Your task to perform on an android device: Clear the cart on target.com. Add energizer triple a to the cart on target.com, then select checkout. Image 0: 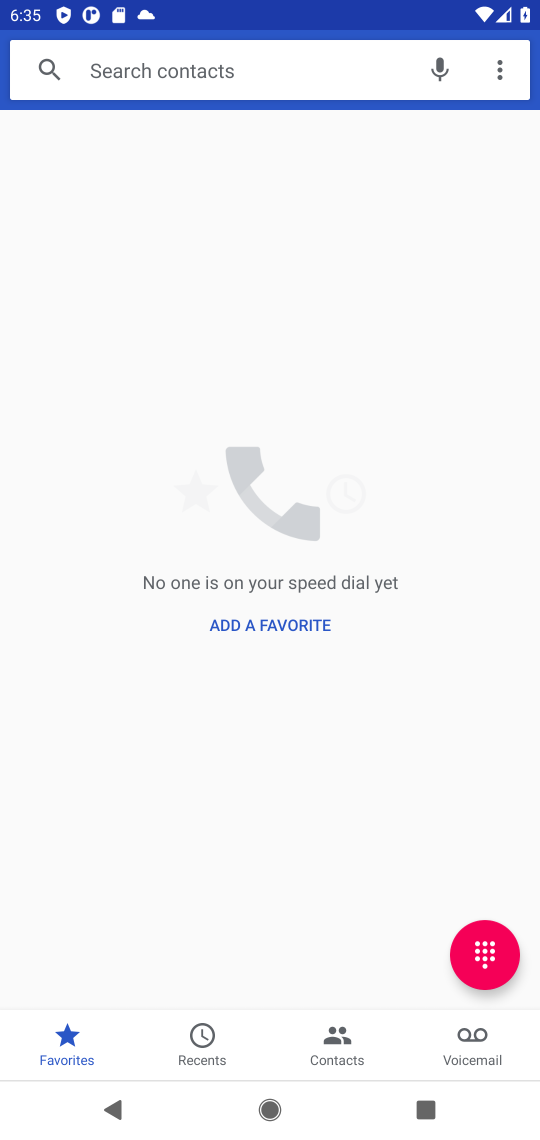
Step 0: press home button
Your task to perform on an android device: Clear the cart on target.com. Add energizer triple a to the cart on target.com, then select checkout. Image 1: 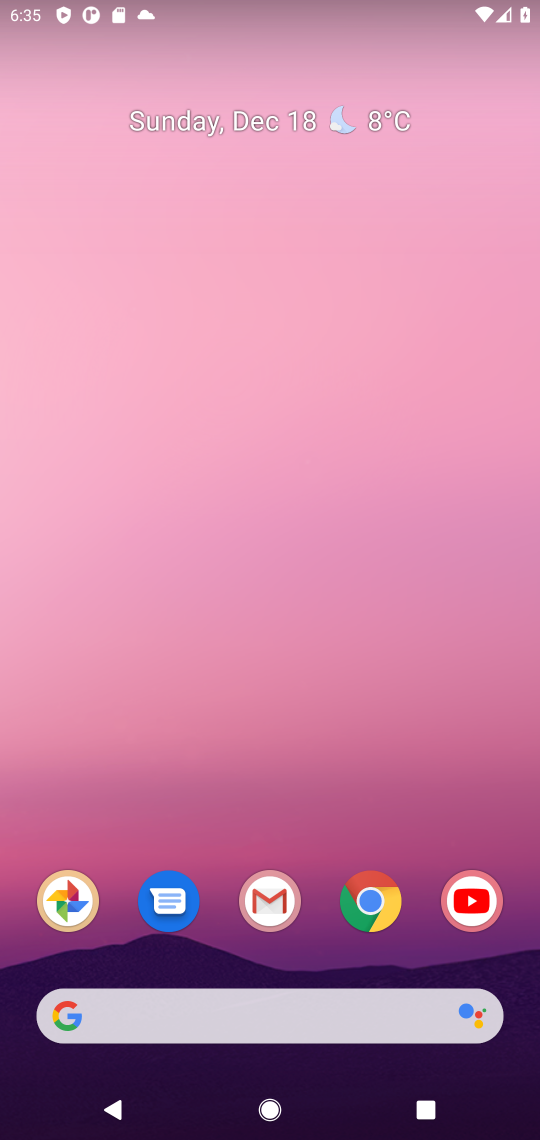
Step 1: click (363, 882)
Your task to perform on an android device: Clear the cart on target.com. Add energizer triple a to the cart on target.com, then select checkout. Image 2: 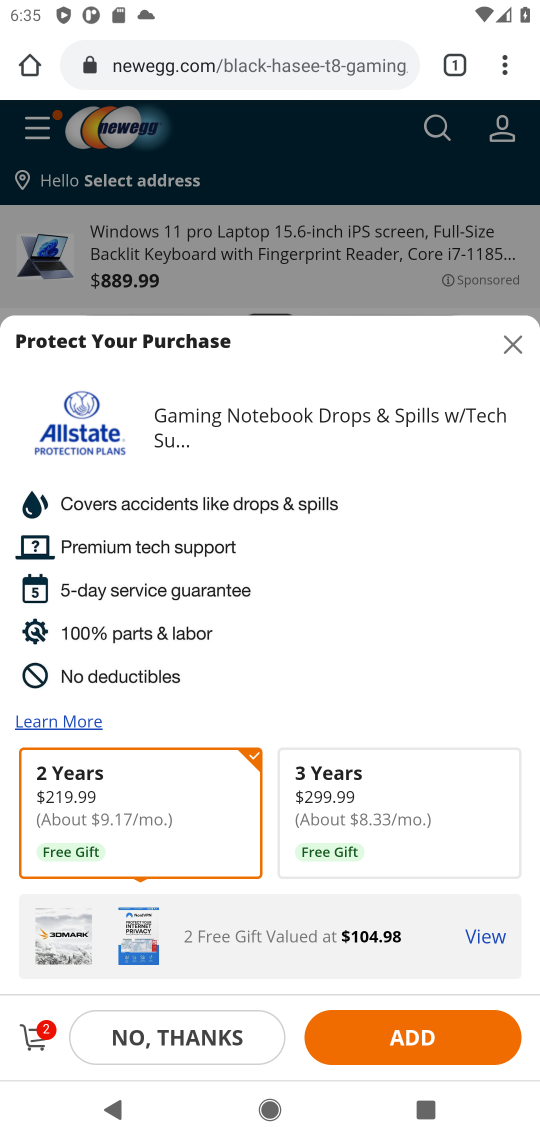
Step 2: click (180, 57)
Your task to perform on an android device: Clear the cart on target.com. Add energizer triple a to the cart on target.com, then select checkout. Image 3: 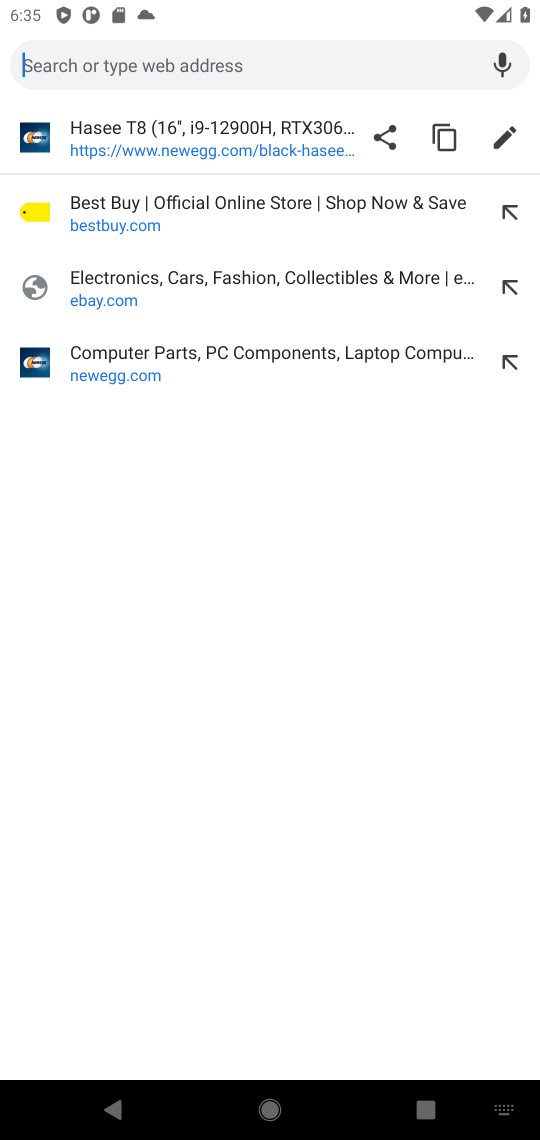
Step 3: type "target"
Your task to perform on an android device: Clear the cart on target.com. Add energizer triple a to the cart on target.com, then select checkout. Image 4: 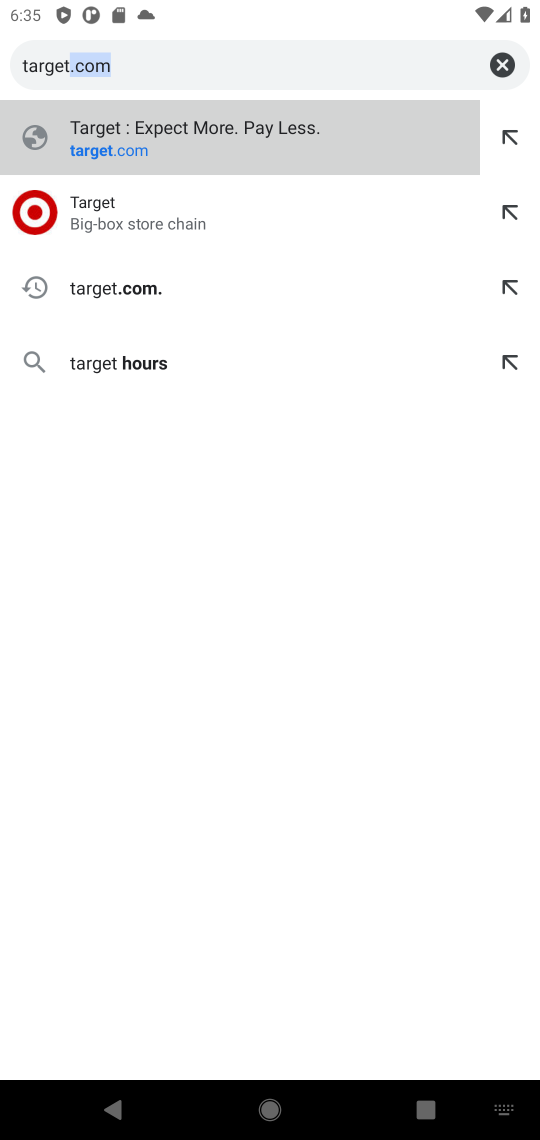
Step 4: click (146, 147)
Your task to perform on an android device: Clear the cart on target.com. Add energizer triple a to the cart on target.com, then select checkout. Image 5: 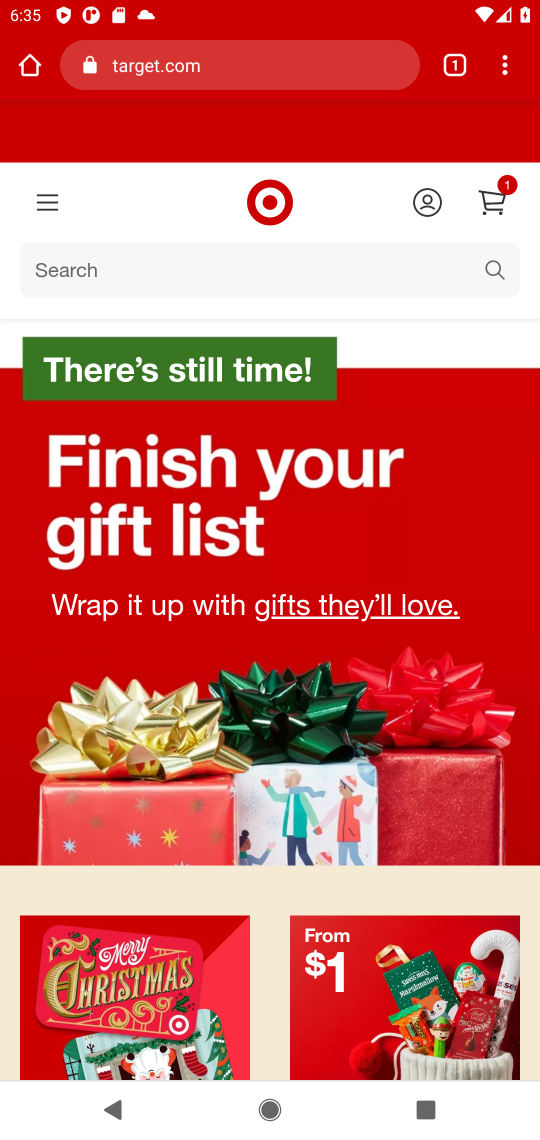
Step 5: click (67, 283)
Your task to perform on an android device: Clear the cart on target.com. Add energizer triple a to the cart on target.com, then select checkout. Image 6: 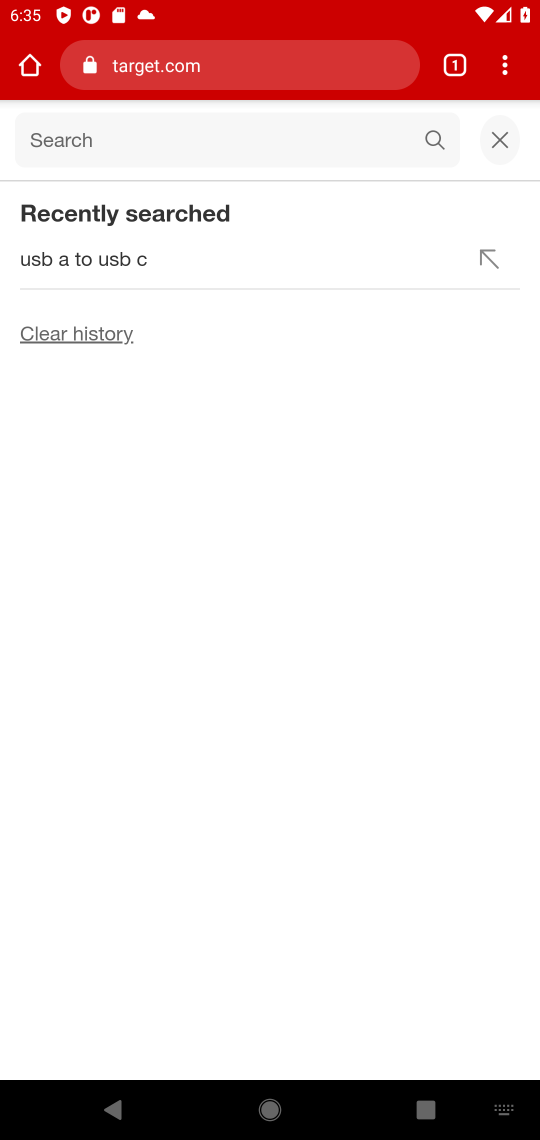
Step 6: type "energizer triple a"
Your task to perform on an android device: Clear the cart on target.com. Add energizer triple a to the cart on target.com, then select checkout. Image 7: 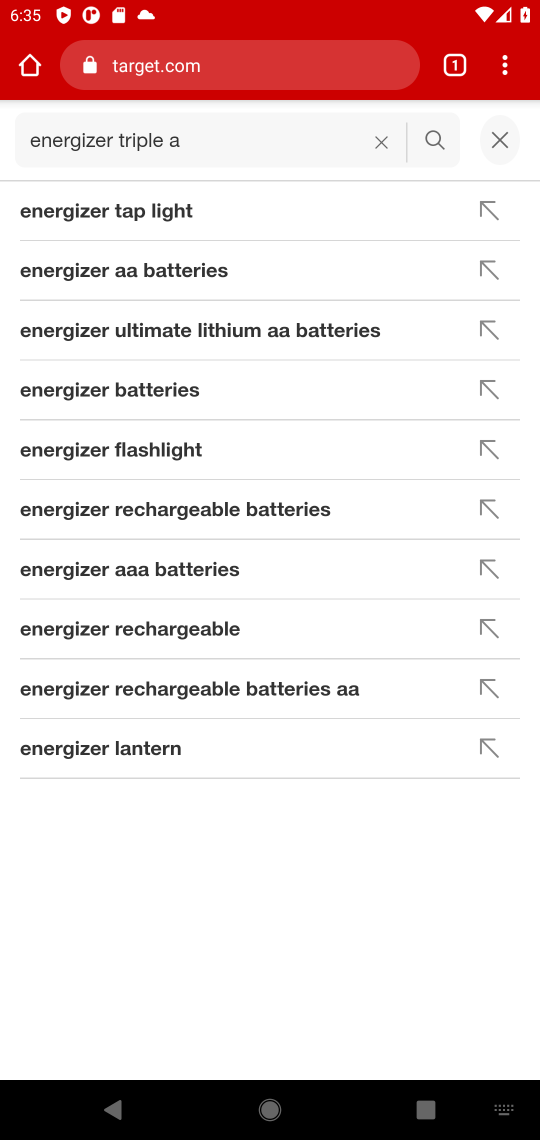
Step 7: click (440, 154)
Your task to perform on an android device: Clear the cart on target.com. Add energizer triple a to the cart on target.com, then select checkout. Image 8: 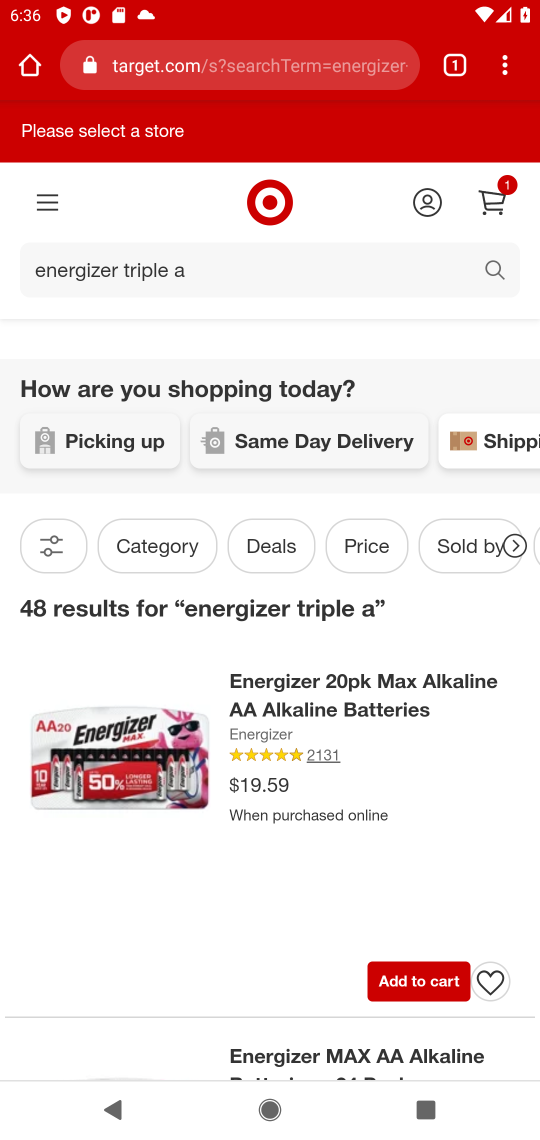
Step 8: click (408, 980)
Your task to perform on an android device: Clear the cart on target.com. Add energizer triple a to the cart on target.com, then select checkout. Image 9: 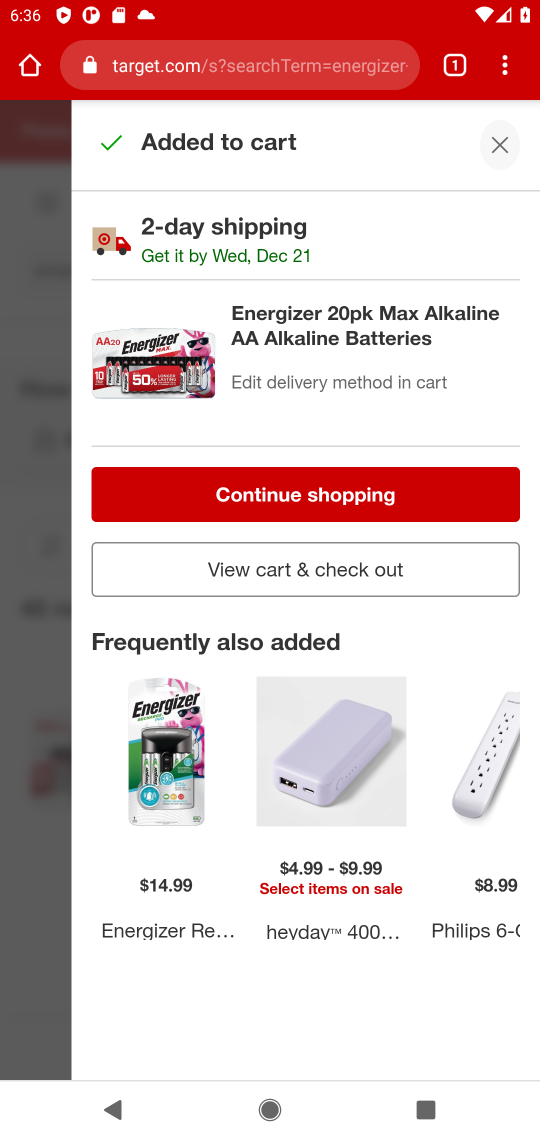
Step 9: task complete